Your task to perform on an android device: all mails in gmail Image 0: 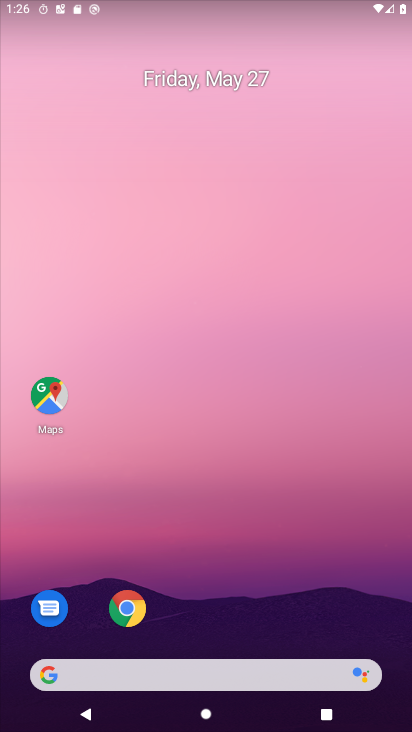
Step 0: drag from (396, 699) to (359, 172)
Your task to perform on an android device: all mails in gmail Image 1: 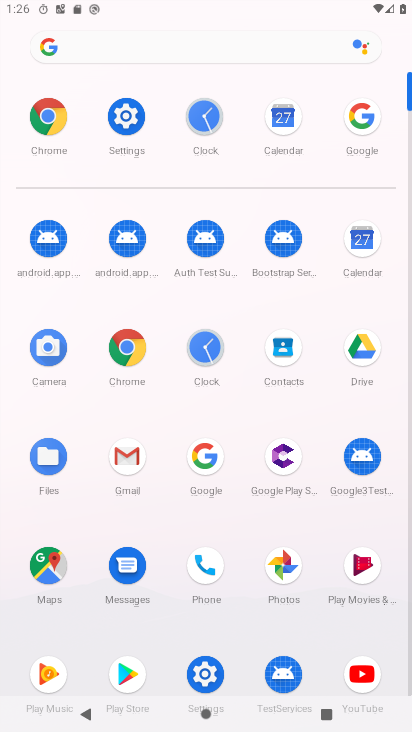
Step 1: click (128, 471)
Your task to perform on an android device: all mails in gmail Image 2: 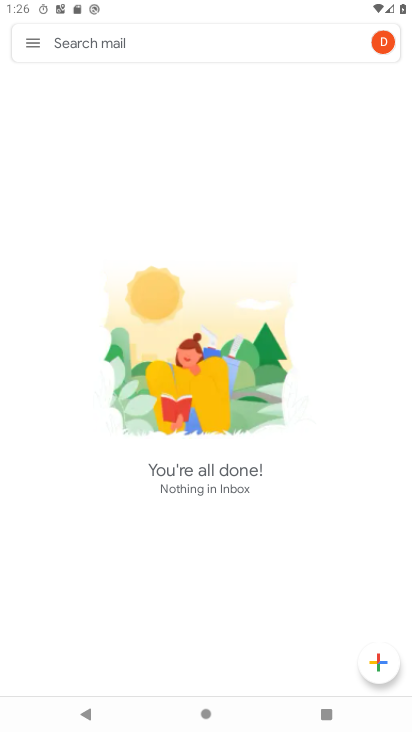
Step 2: click (22, 41)
Your task to perform on an android device: all mails in gmail Image 3: 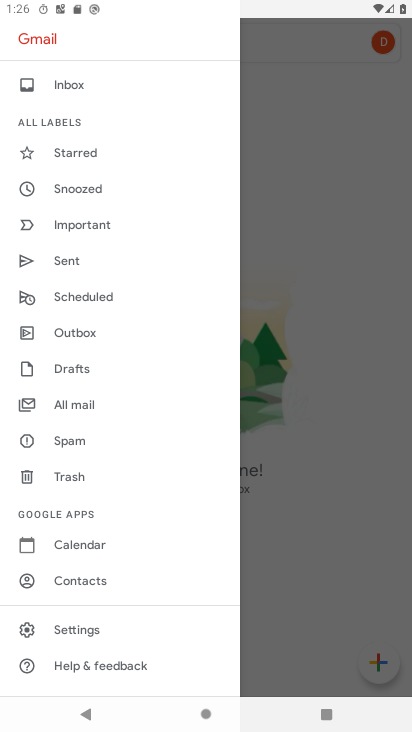
Step 3: click (68, 399)
Your task to perform on an android device: all mails in gmail Image 4: 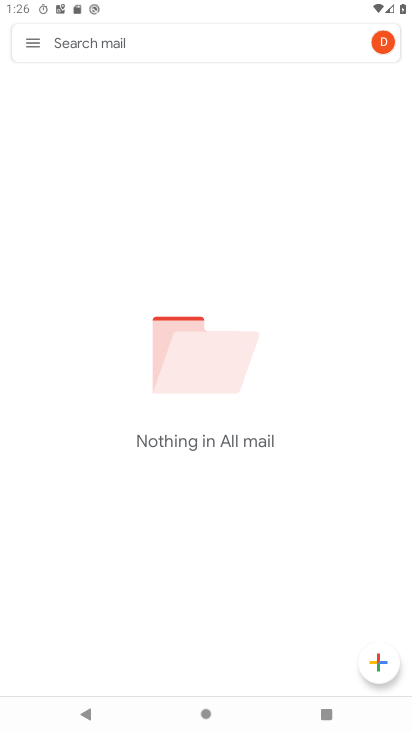
Step 4: task complete